Your task to perform on an android device: Open Google Chrome and click the shortcut for Amazon.com Image 0: 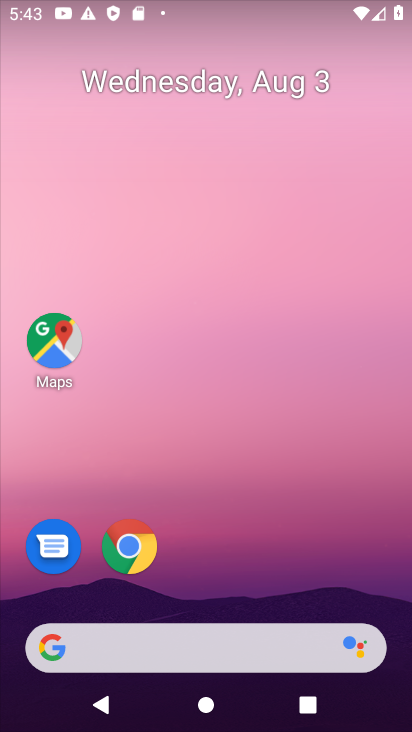
Step 0: click (143, 548)
Your task to perform on an android device: Open Google Chrome and click the shortcut for Amazon.com Image 1: 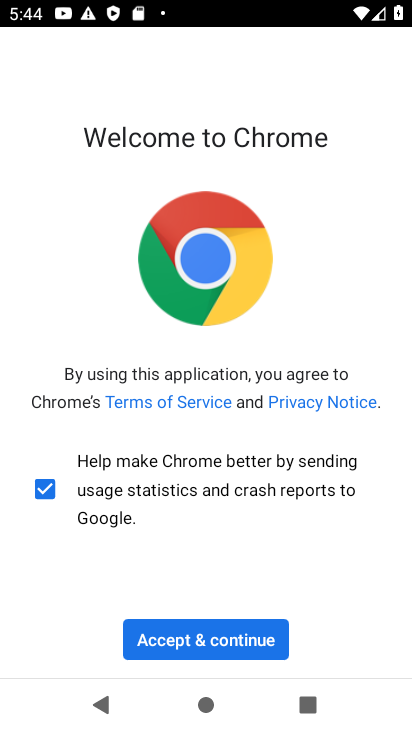
Step 1: click (238, 644)
Your task to perform on an android device: Open Google Chrome and click the shortcut for Amazon.com Image 2: 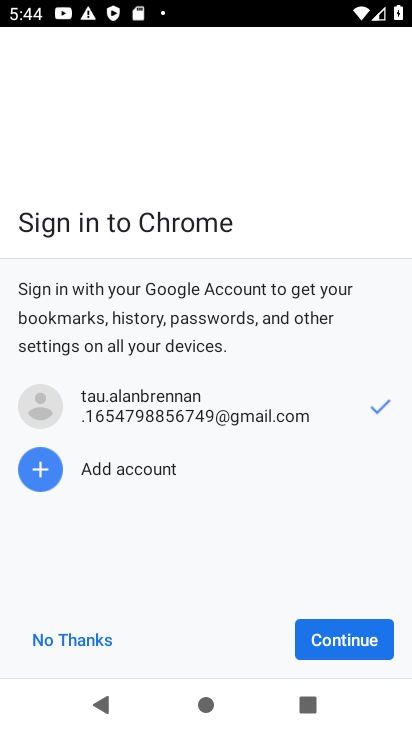
Step 2: click (344, 637)
Your task to perform on an android device: Open Google Chrome and click the shortcut for Amazon.com Image 3: 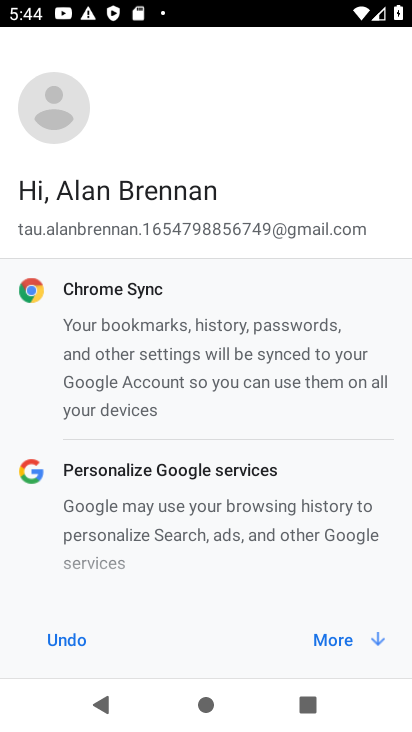
Step 3: click (328, 643)
Your task to perform on an android device: Open Google Chrome and click the shortcut for Amazon.com Image 4: 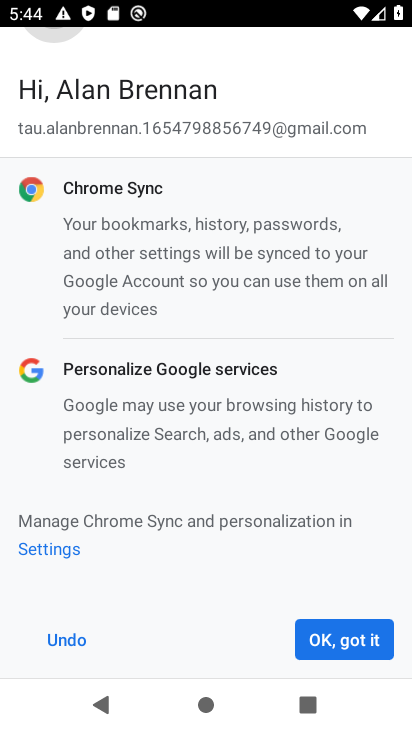
Step 4: click (308, 648)
Your task to perform on an android device: Open Google Chrome and click the shortcut for Amazon.com Image 5: 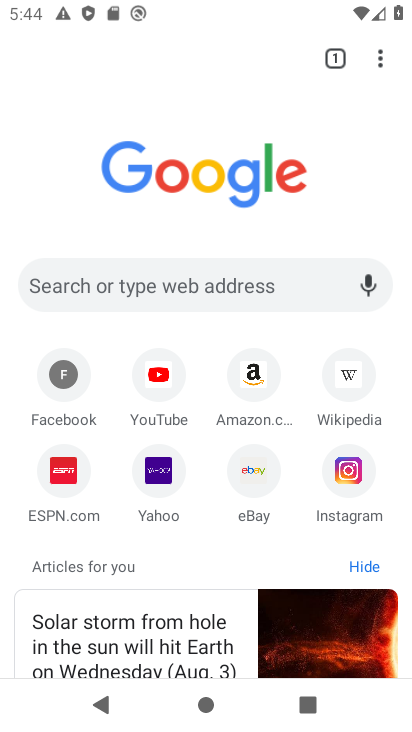
Step 5: click (250, 371)
Your task to perform on an android device: Open Google Chrome and click the shortcut for Amazon.com Image 6: 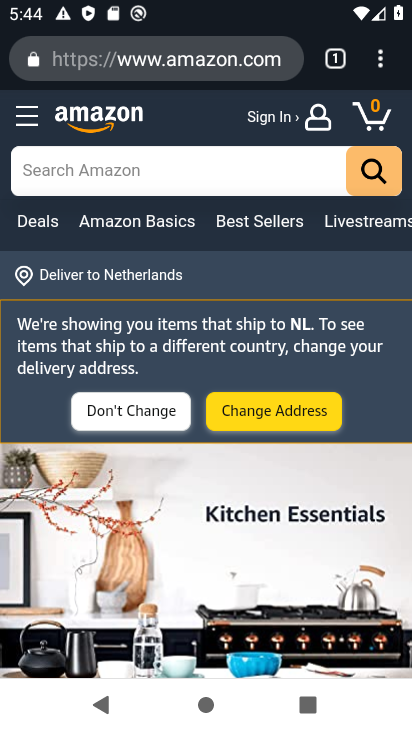
Step 6: task complete